Your task to perform on an android device: Search for vegetarian restaurants on Maps Image 0: 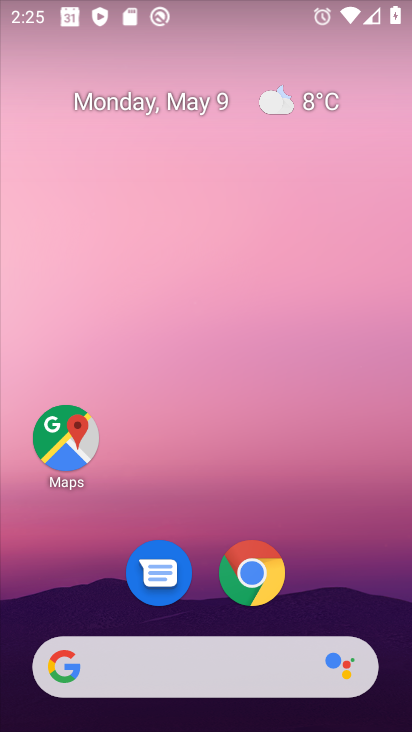
Step 0: drag from (197, 656) to (340, 179)
Your task to perform on an android device: Search for vegetarian restaurants on Maps Image 1: 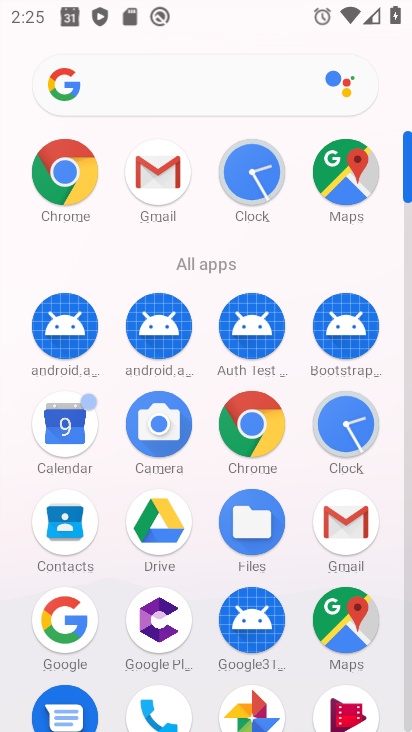
Step 1: click (338, 182)
Your task to perform on an android device: Search for vegetarian restaurants on Maps Image 2: 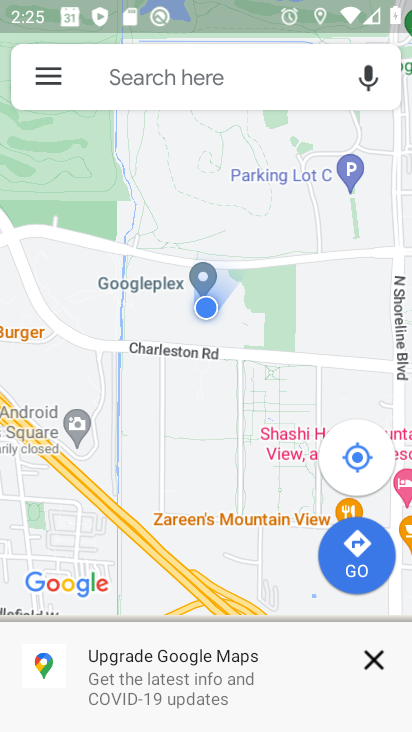
Step 2: click (129, 66)
Your task to perform on an android device: Search for vegetarian restaurants on Maps Image 3: 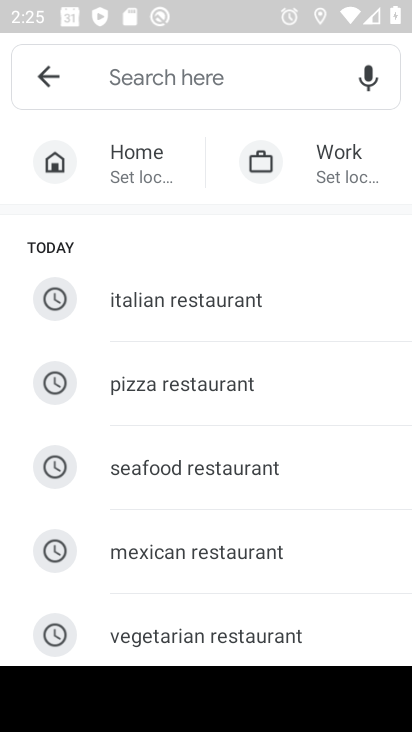
Step 3: click (175, 637)
Your task to perform on an android device: Search for vegetarian restaurants on Maps Image 4: 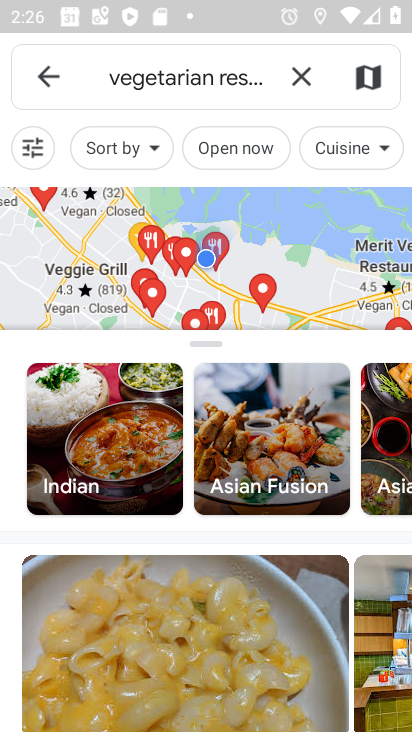
Step 4: task complete